Your task to perform on an android device: Open the map Image 0: 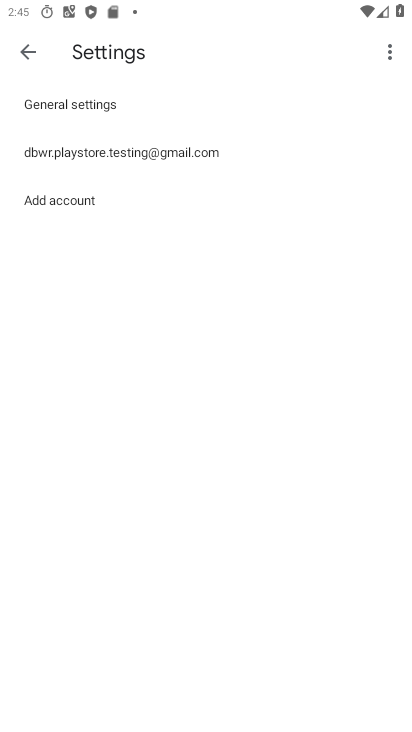
Step 0: press home button
Your task to perform on an android device: Open the map Image 1: 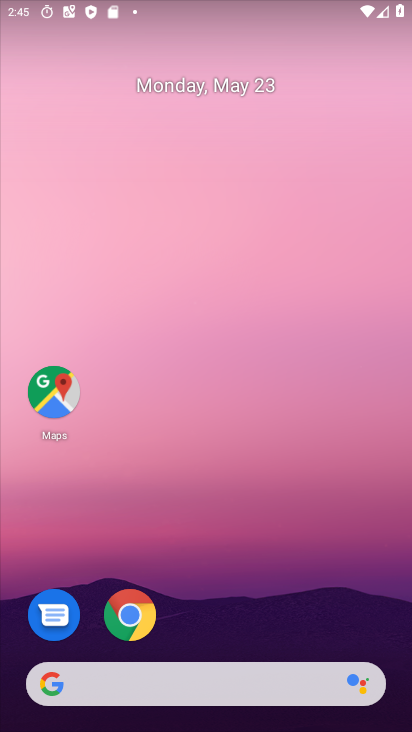
Step 1: click (50, 396)
Your task to perform on an android device: Open the map Image 2: 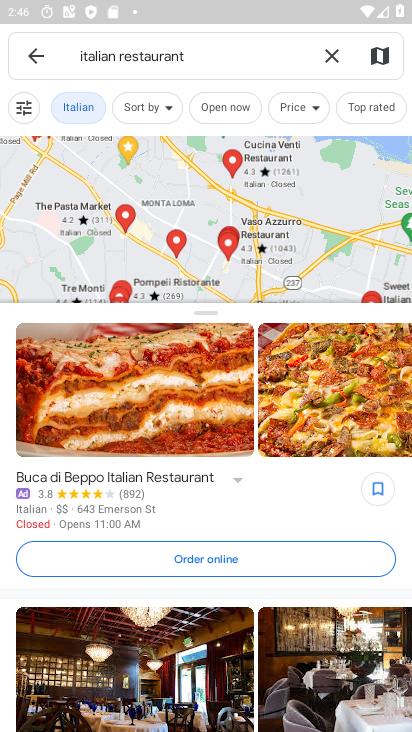
Step 2: task complete